Your task to perform on an android device: set the timer Image 0: 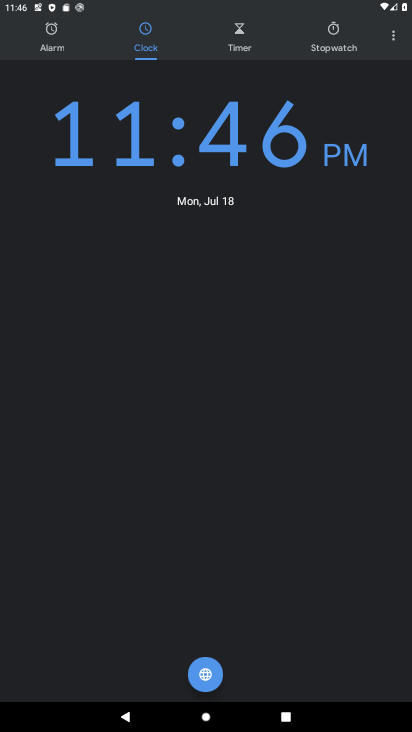
Step 0: click (248, 45)
Your task to perform on an android device: set the timer Image 1: 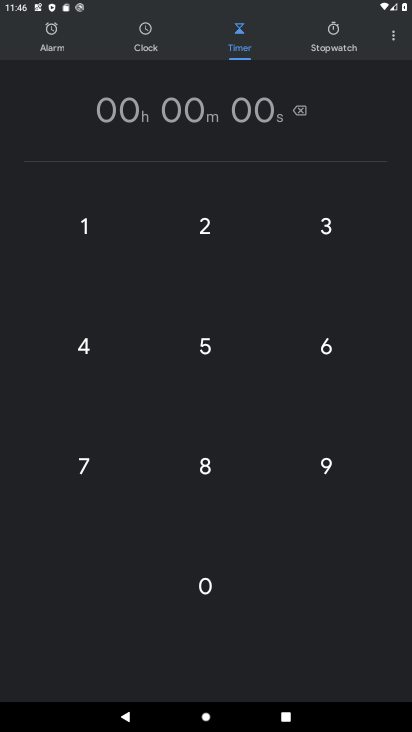
Step 1: click (323, 226)
Your task to perform on an android device: set the timer Image 2: 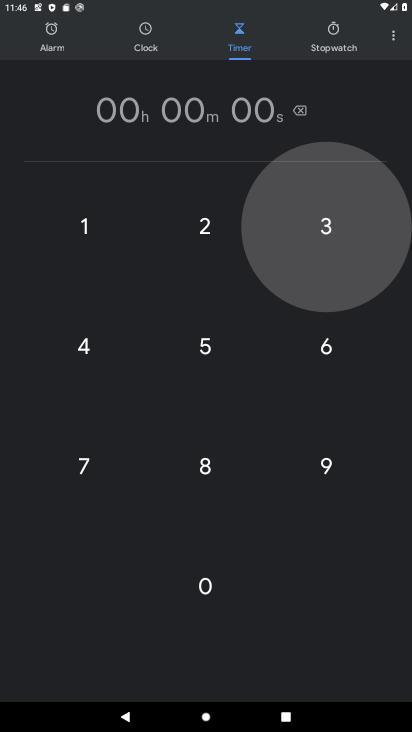
Step 2: click (323, 226)
Your task to perform on an android device: set the timer Image 3: 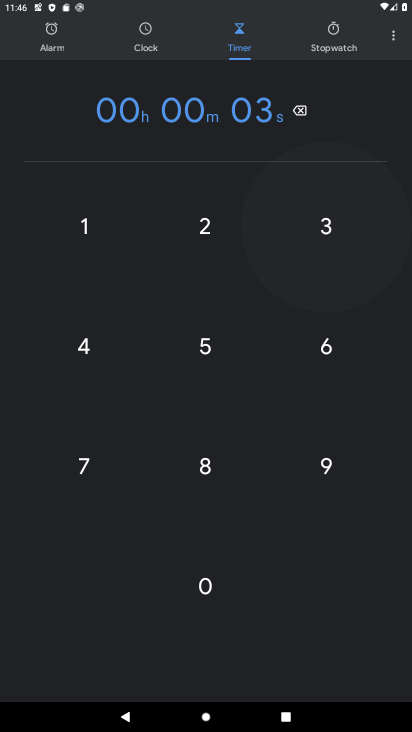
Step 3: click (323, 226)
Your task to perform on an android device: set the timer Image 4: 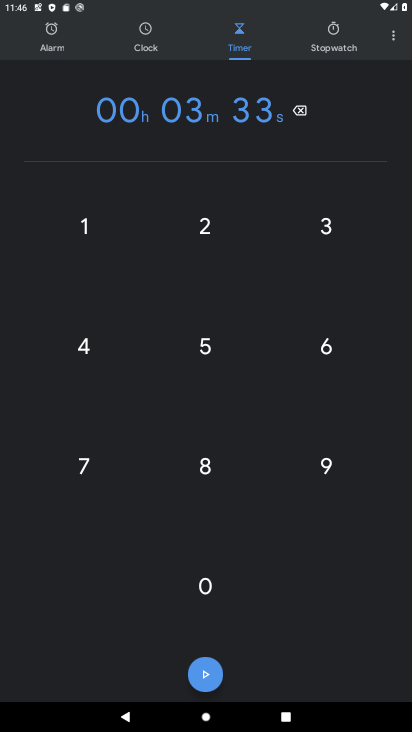
Step 4: click (205, 675)
Your task to perform on an android device: set the timer Image 5: 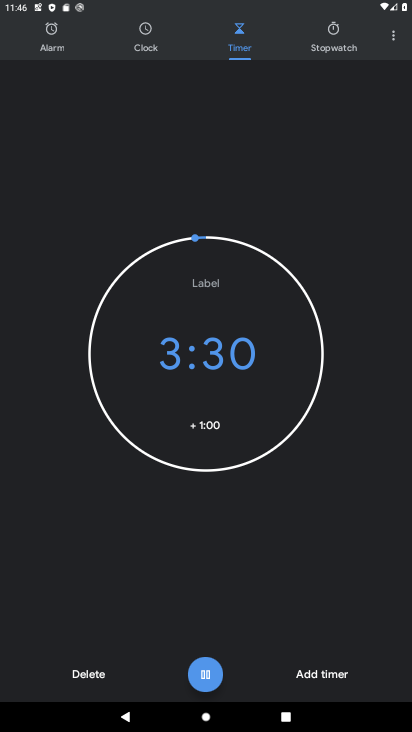
Step 5: task complete